Your task to perform on an android device: Check the weather Image 0: 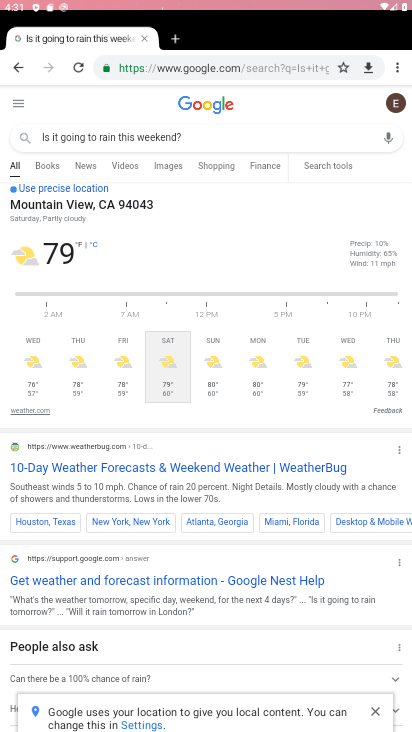
Step 0: press home button
Your task to perform on an android device: Check the weather Image 1: 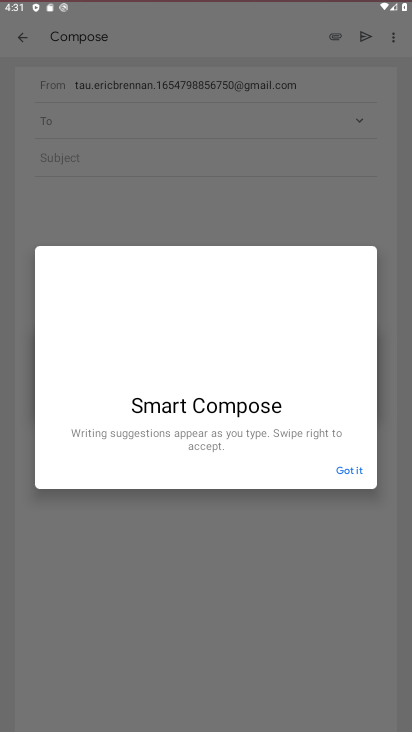
Step 1: drag from (336, 678) to (402, 107)
Your task to perform on an android device: Check the weather Image 2: 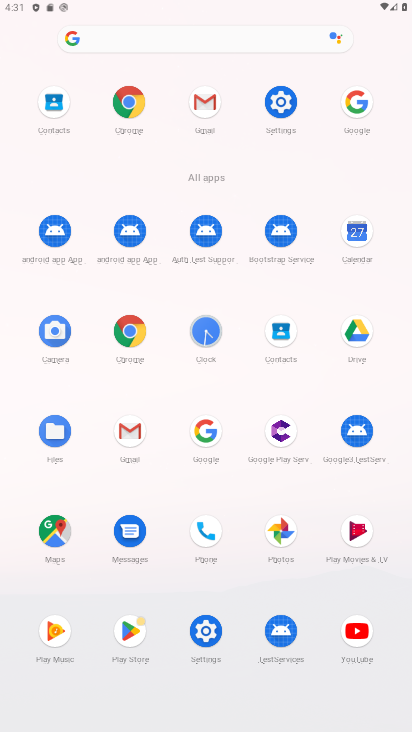
Step 2: click (128, 93)
Your task to perform on an android device: Check the weather Image 3: 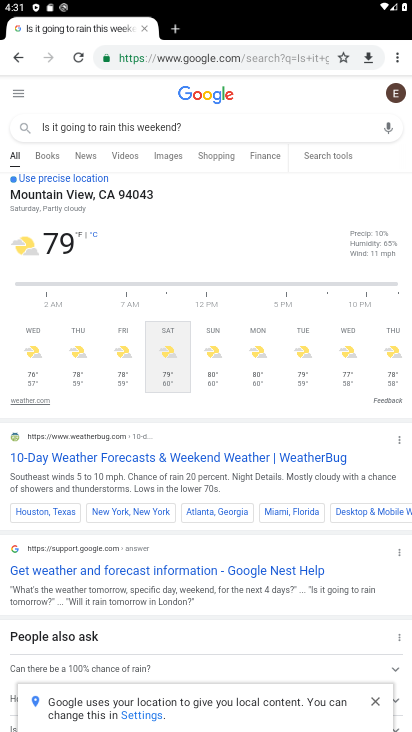
Step 3: click (274, 52)
Your task to perform on an android device: Check the weather Image 4: 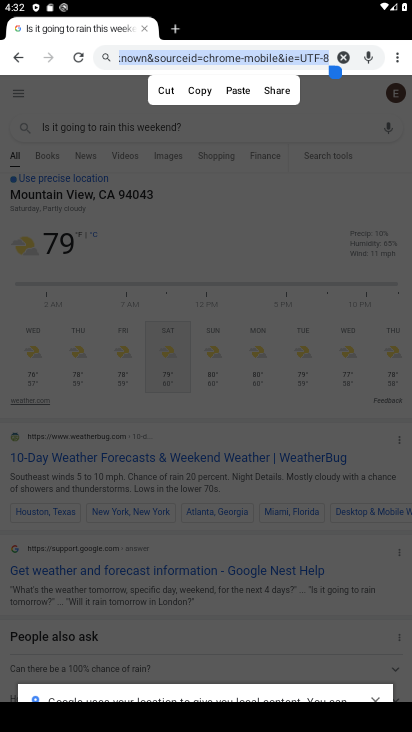
Step 4: type "Is it going to rain this weekend?"
Your task to perform on an android device: Check the weather Image 5: 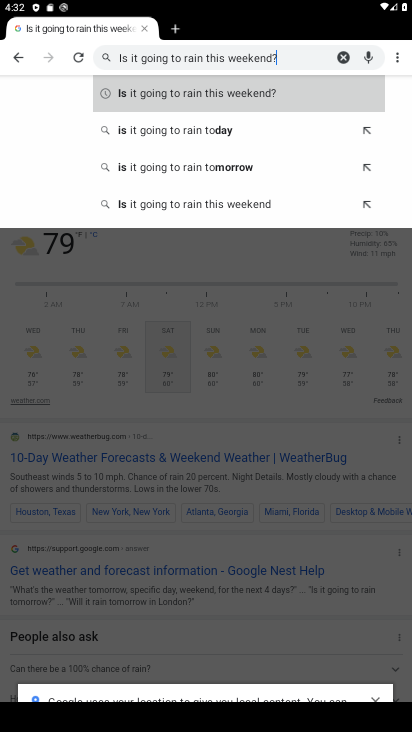
Step 5: type ""
Your task to perform on an android device: Check the weather Image 6: 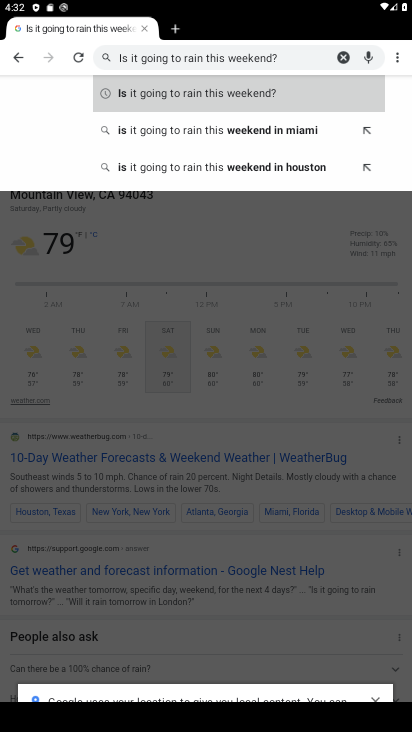
Step 6: click (345, 54)
Your task to perform on an android device: Check the weather Image 7: 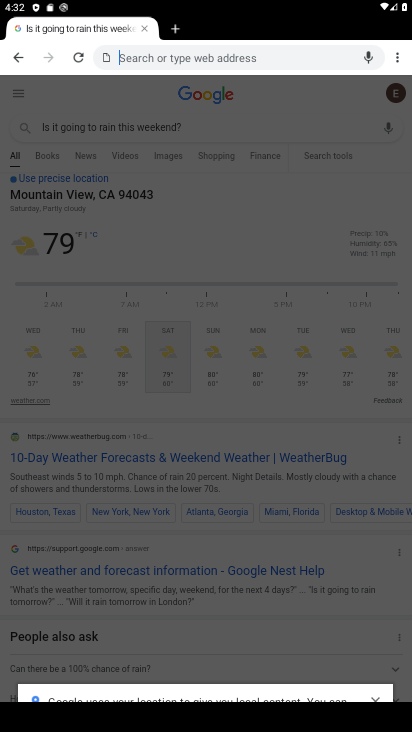
Step 7: type "weather"
Your task to perform on an android device: Check the weather Image 8: 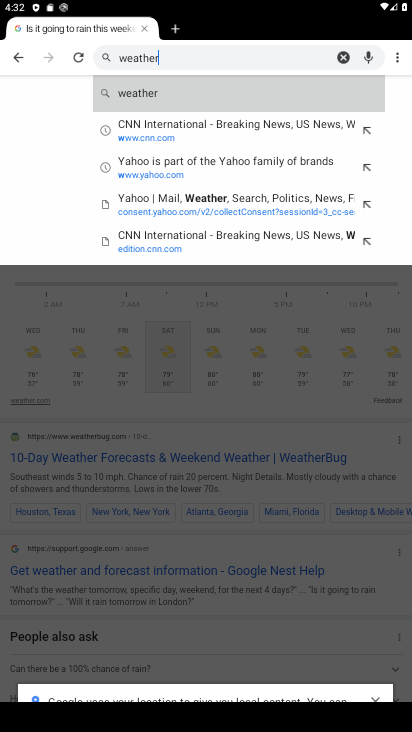
Step 8: type ""
Your task to perform on an android device: Check the weather Image 9: 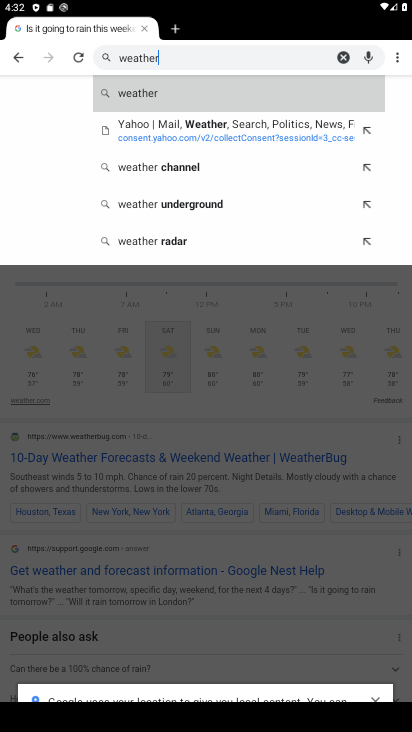
Step 9: click (196, 85)
Your task to perform on an android device: Check the weather Image 10: 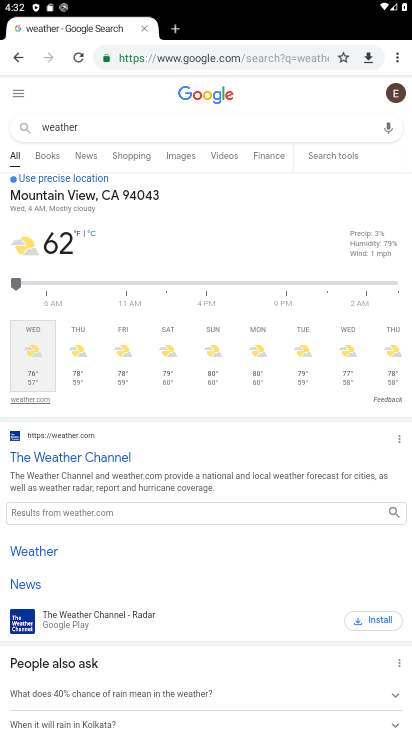
Step 10: task complete